Your task to perform on an android device: Open Chrome and go to the settings page Image 0: 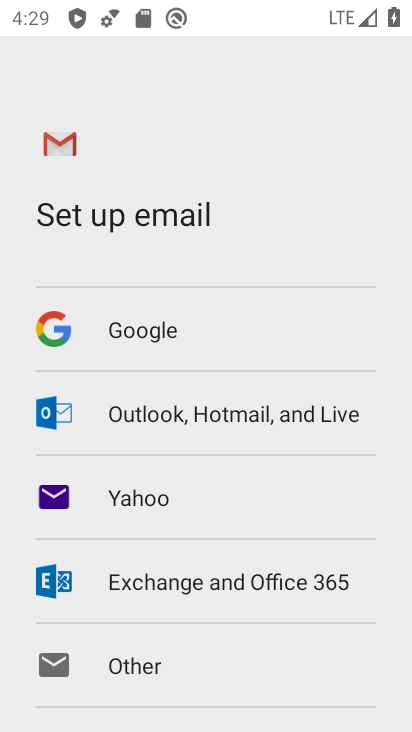
Step 0: press home button
Your task to perform on an android device: Open Chrome and go to the settings page Image 1: 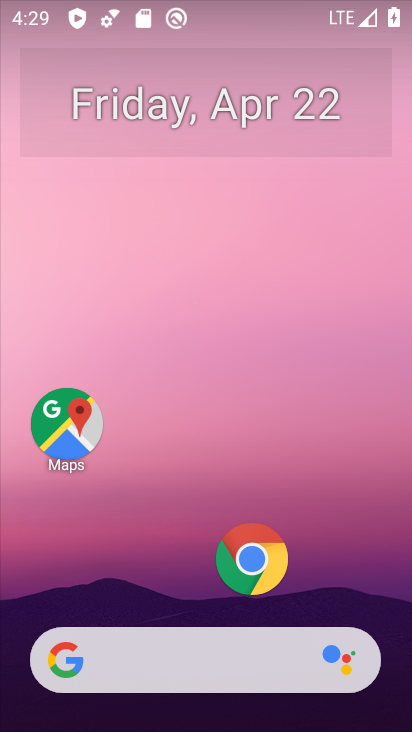
Step 1: click (253, 538)
Your task to perform on an android device: Open Chrome and go to the settings page Image 2: 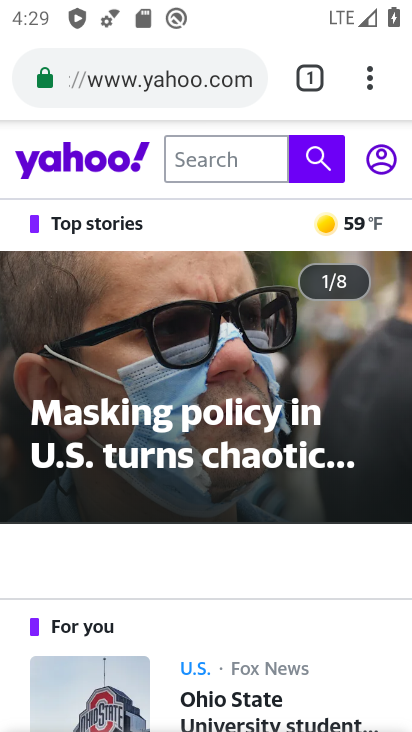
Step 2: click (365, 82)
Your task to perform on an android device: Open Chrome and go to the settings page Image 3: 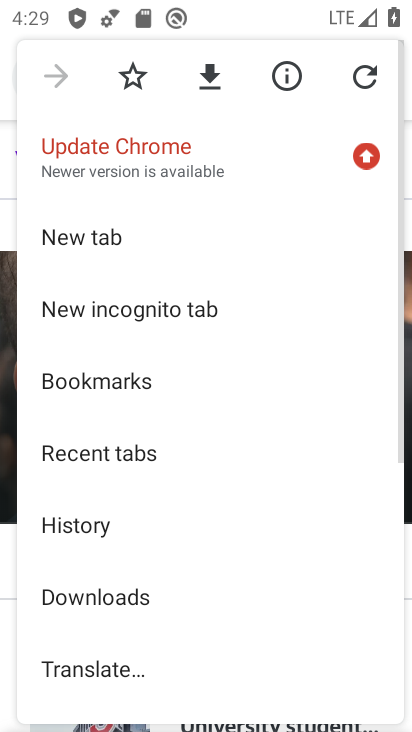
Step 3: drag from (106, 609) to (214, 190)
Your task to perform on an android device: Open Chrome and go to the settings page Image 4: 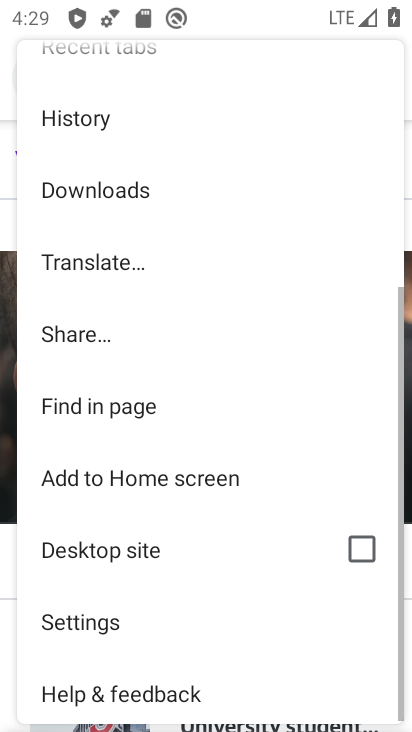
Step 4: drag from (124, 700) to (148, 471)
Your task to perform on an android device: Open Chrome and go to the settings page Image 5: 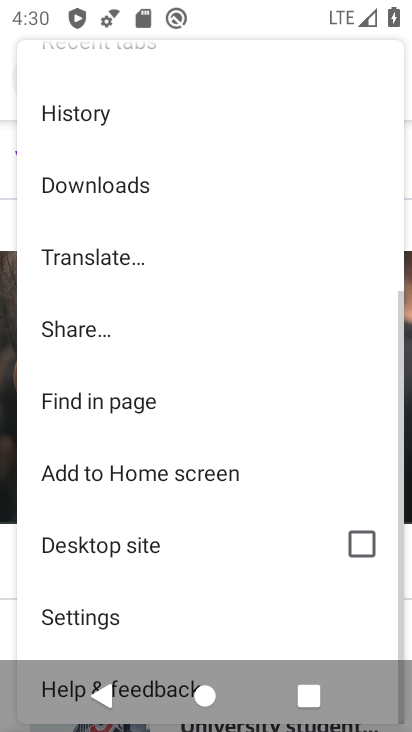
Step 5: click (83, 626)
Your task to perform on an android device: Open Chrome and go to the settings page Image 6: 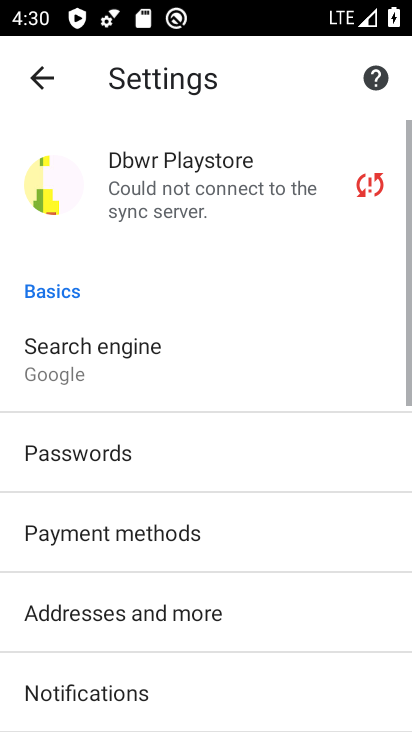
Step 6: task complete